Your task to perform on an android device: Go to sound settings Image 0: 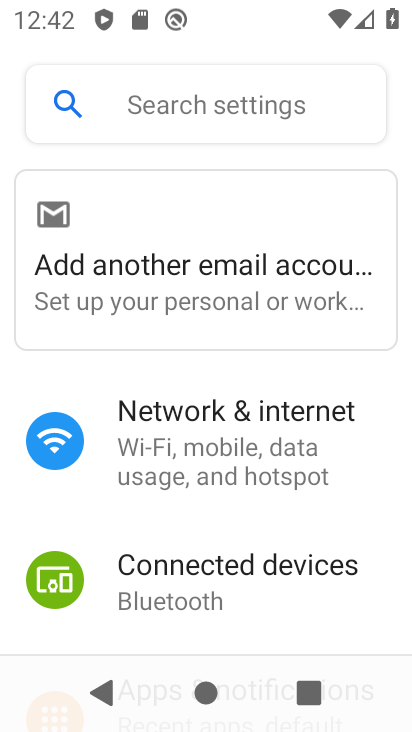
Step 0: drag from (274, 576) to (255, 316)
Your task to perform on an android device: Go to sound settings Image 1: 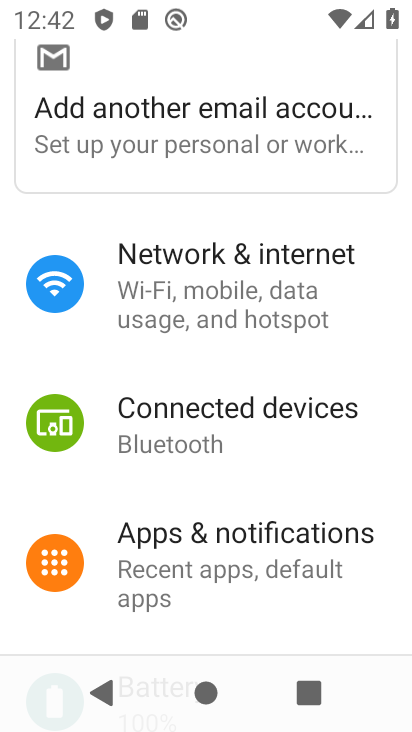
Step 1: drag from (218, 595) to (254, 226)
Your task to perform on an android device: Go to sound settings Image 2: 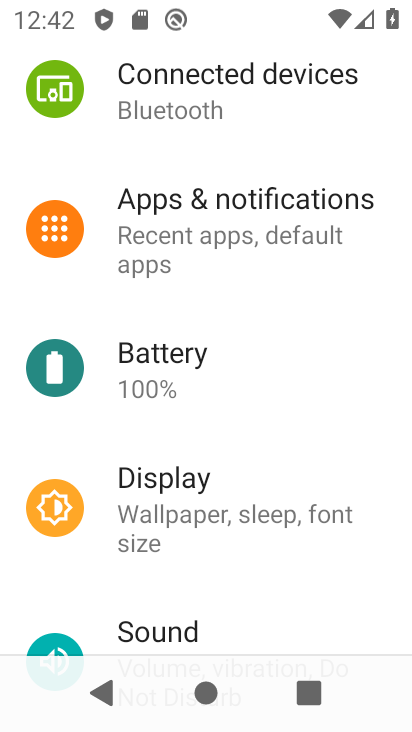
Step 2: click (182, 631)
Your task to perform on an android device: Go to sound settings Image 3: 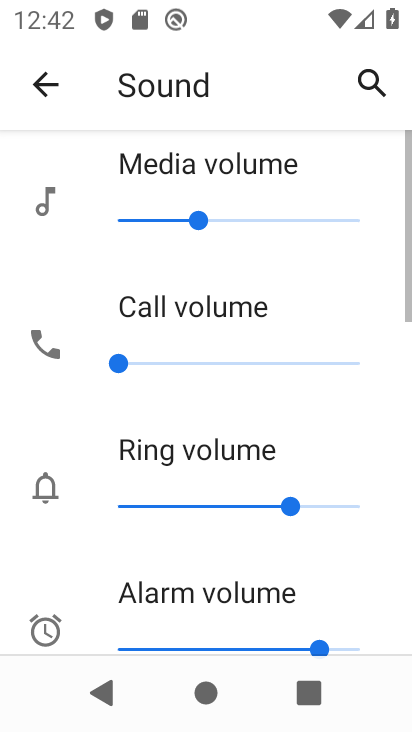
Step 3: task complete